Your task to perform on an android device: Search for logitech g933 on ebay, select the first entry, add it to the cart, then select checkout. Image 0: 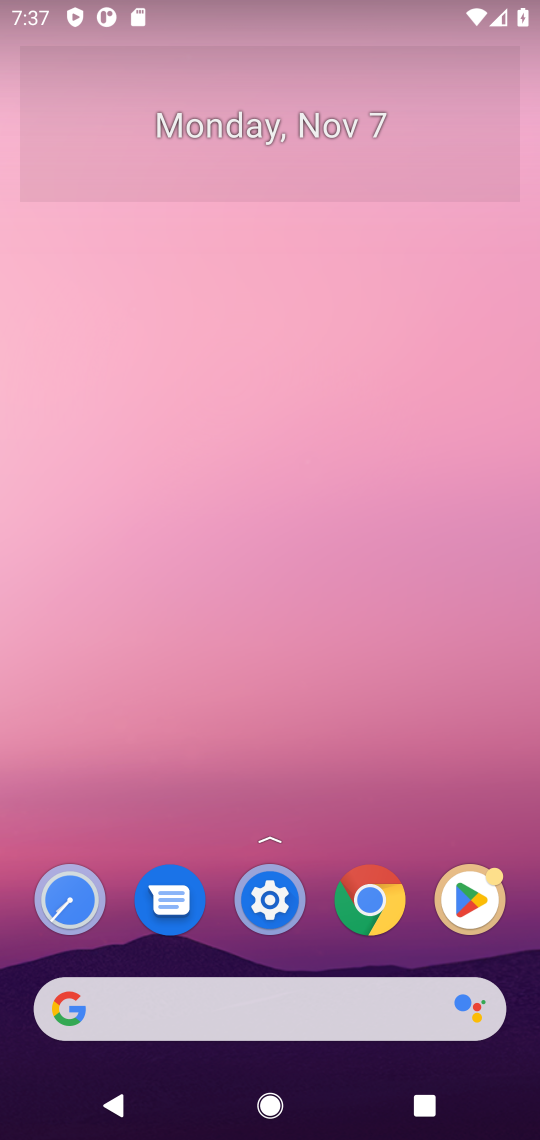
Step 0: click (285, 1038)
Your task to perform on an android device: Search for logitech g933 on ebay, select the first entry, add it to the cart, then select checkout. Image 1: 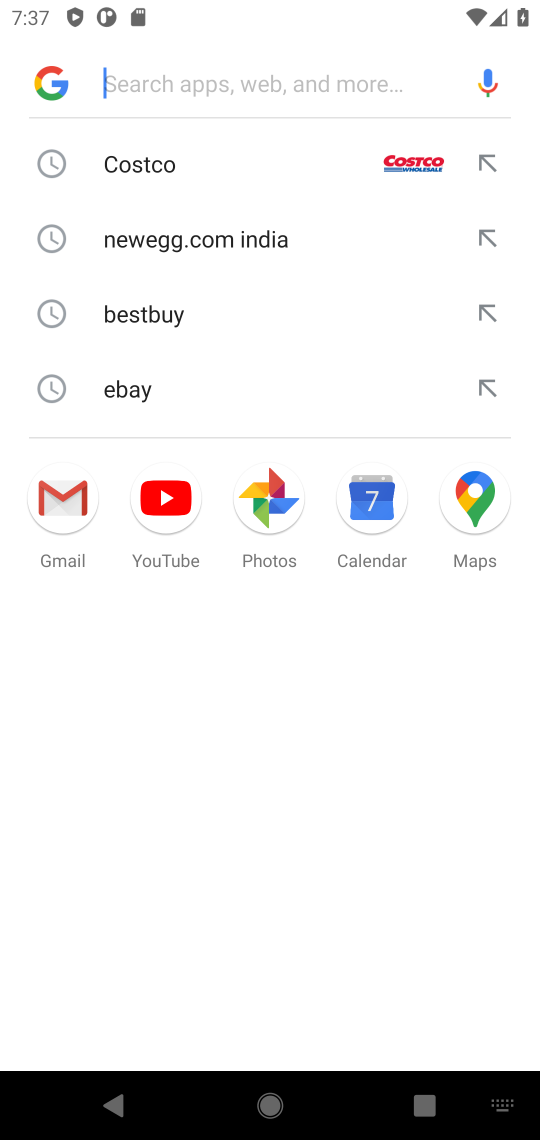
Step 1: click (215, 395)
Your task to perform on an android device: Search for logitech g933 on ebay, select the first entry, add it to the cart, then select checkout. Image 2: 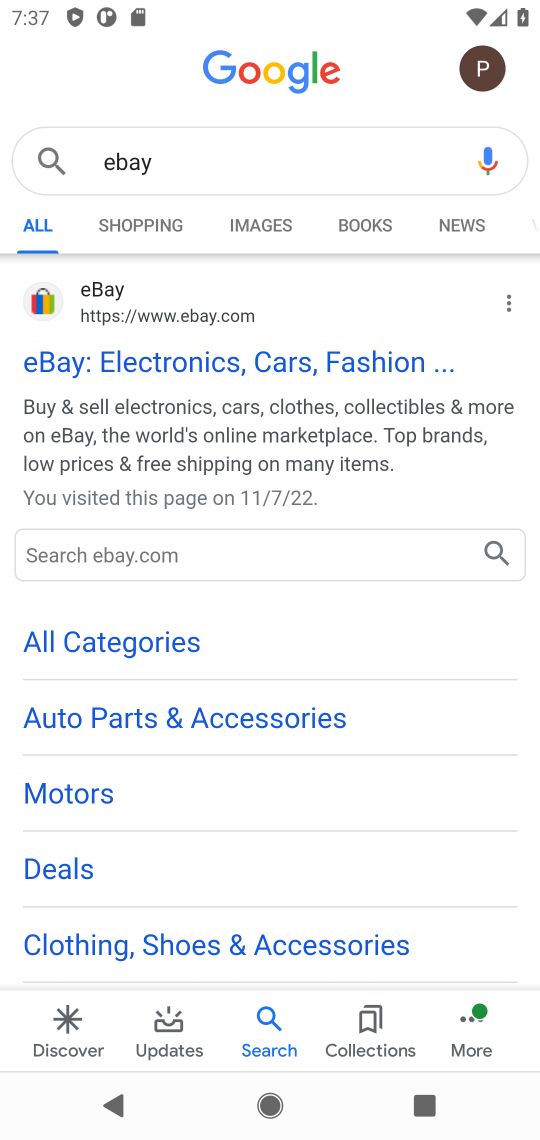
Step 2: click (220, 363)
Your task to perform on an android device: Search for logitech g933 on ebay, select the first entry, add it to the cart, then select checkout. Image 3: 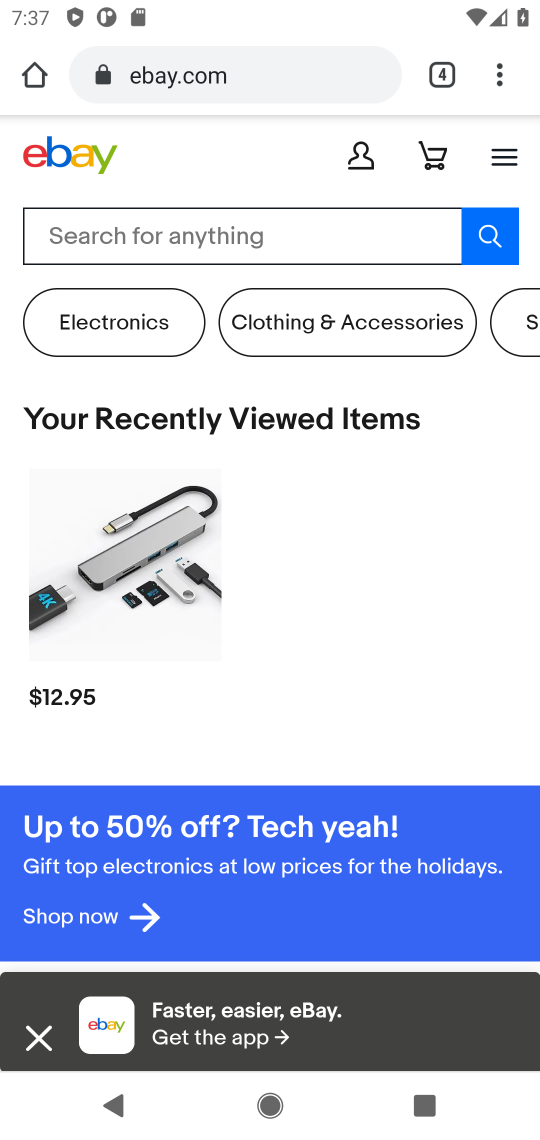
Step 3: click (181, 221)
Your task to perform on an android device: Search for logitech g933 on ebay, select the first entry, add it to the cart, then select checkout. Image 4: 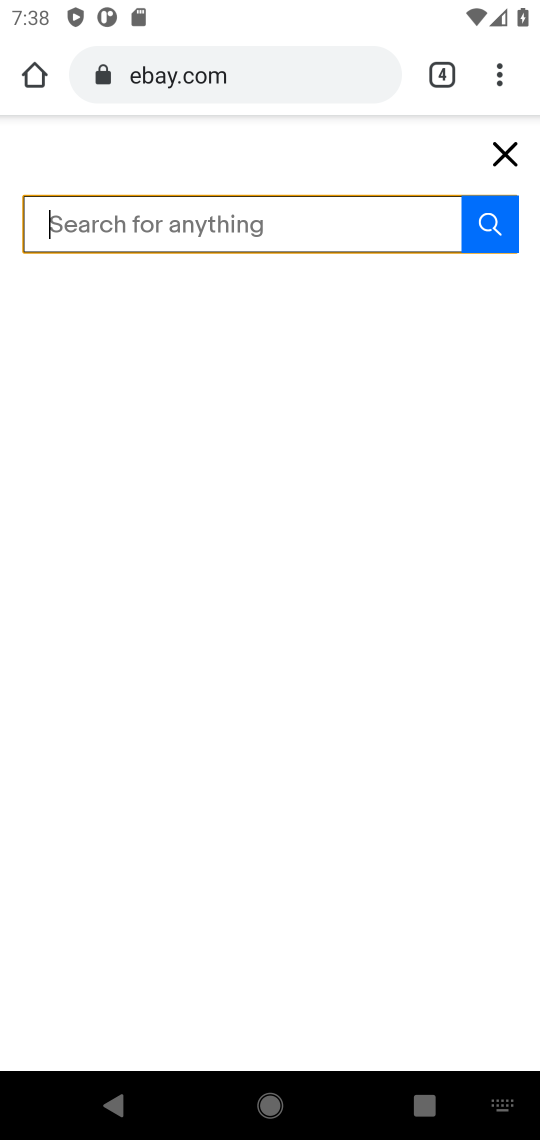
Step 4: task complete